Your task to perform on an android device: Open the calendar app, open the side menu, and click the "Day" option Image 0: 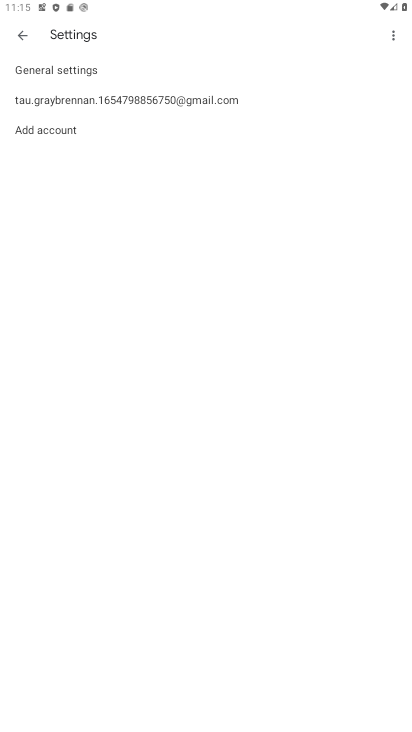
Step 0: press home button
Your task to perform on an android device: Open the calendar app, open the side menu, and click the "Day" option Image 1: 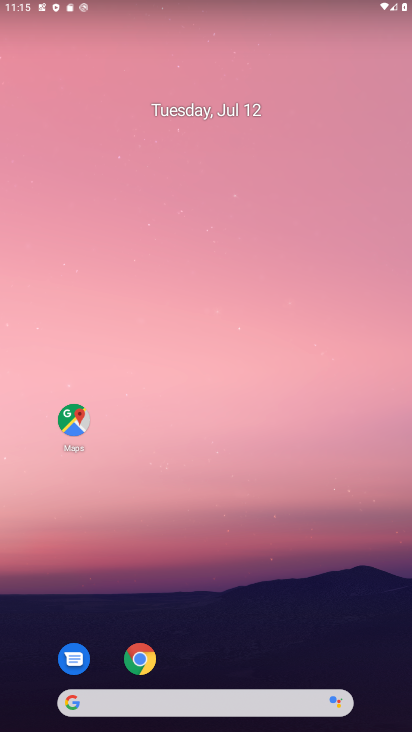
Step 1: drag from (277, 545) to (310, 11)
Your task to perform on an android device: Open the calendar app, open the side menu, and click the "Day" option Image 2: 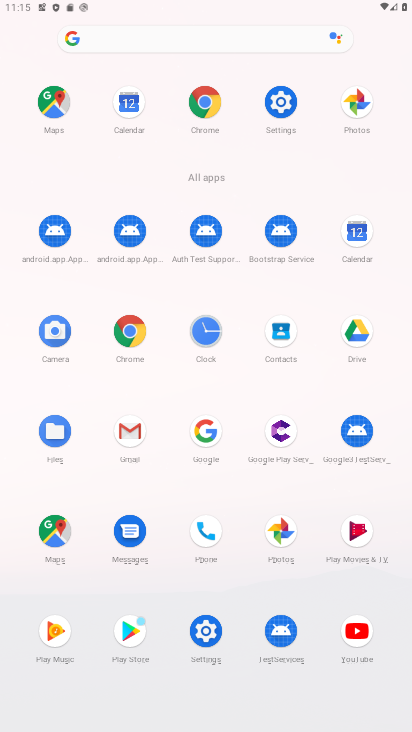
Step 2: click (349, 236)
Your task to perform on an android device: Open the calendar app, open the side menu, and click the "Day" option Image 3: 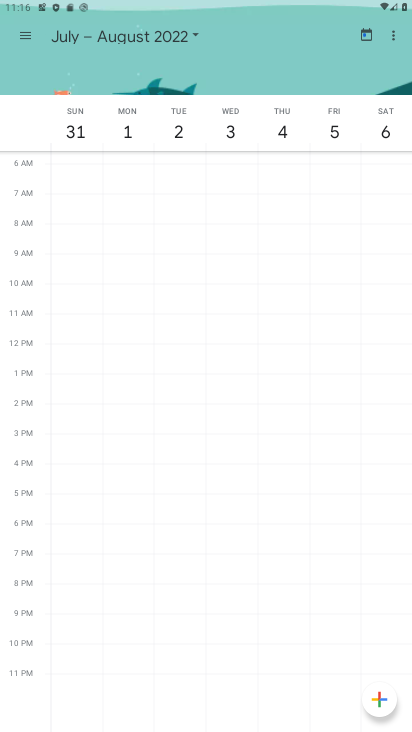
Step 3: click (34, 31)
Your task to perform on an android device: Open the calendar app, open the side menu, and click the "Day" option Image 4: 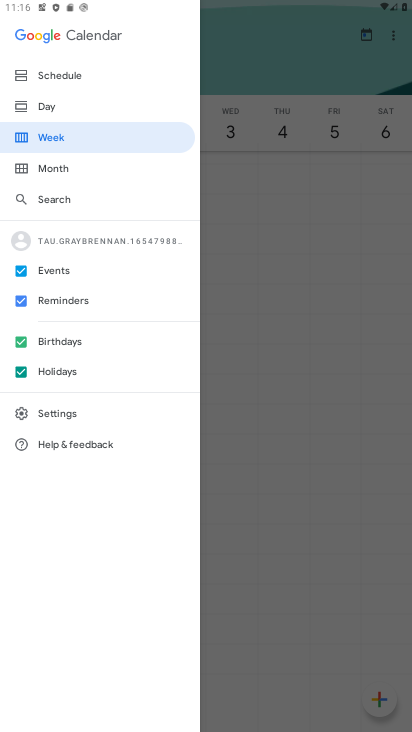
Step 4: click (70, 112)
Your task to perform on an android device: Open the calendar app, open the side menu, and click the "Day" option Image 5: 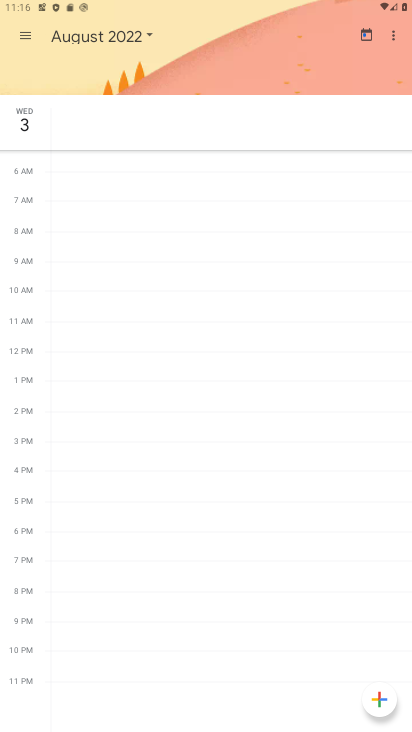
Step 5: task complete